Your task to perform on an android device: Go to Android settings Image 0: 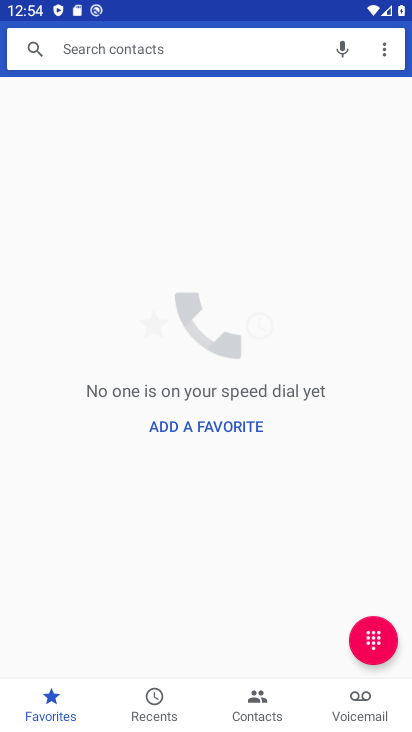
Step 0: press home button
Your task to perform on an android device: Go to Android settings Image 1: 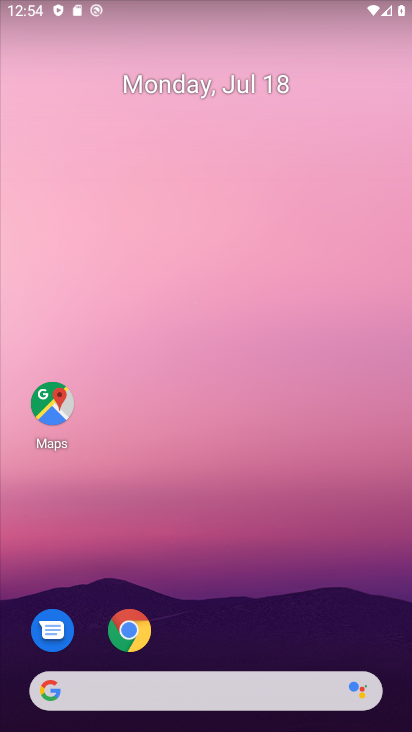
Step 1: drag from (305, 626) to (333, 9)
Your task to perform on an android device: Go to Android settings Image 2: 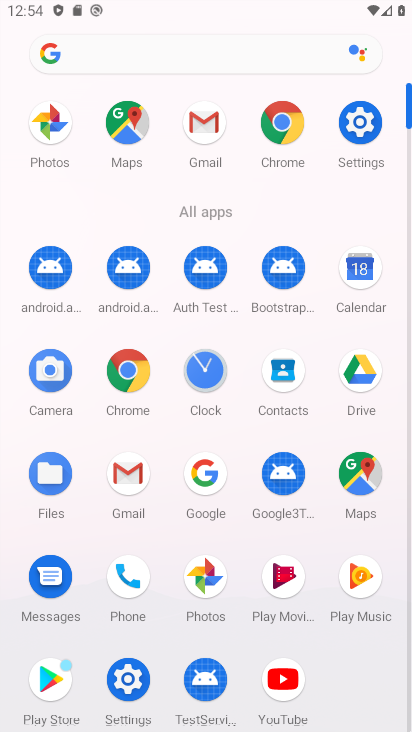
Step 2: click (360, 115)
Your task to perform on an android device: Go to Android settings Image 3: 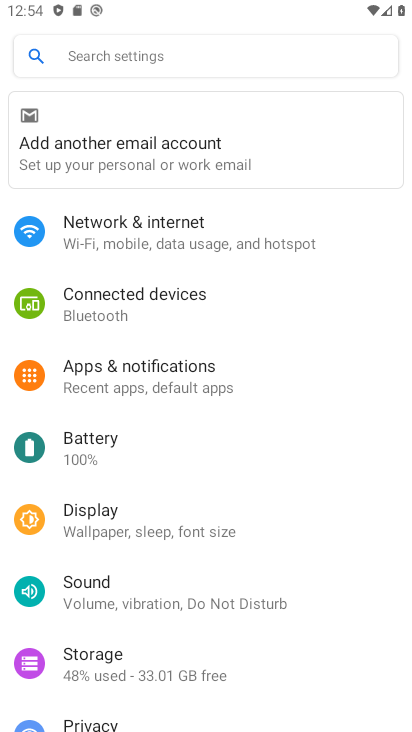
Step 3: drag from (251, 631) to (221, 68)
Your task to perform on an android device: Go to Android settings Image 4: 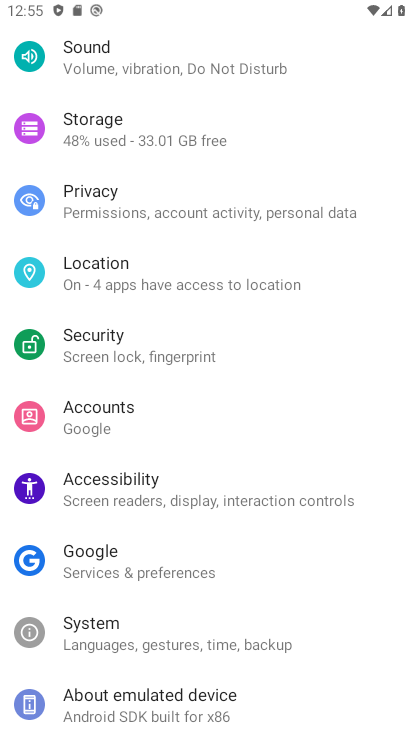
Step 4: click (219, 701)
Your task to perform on an android device: Go to Android settings Image 5: 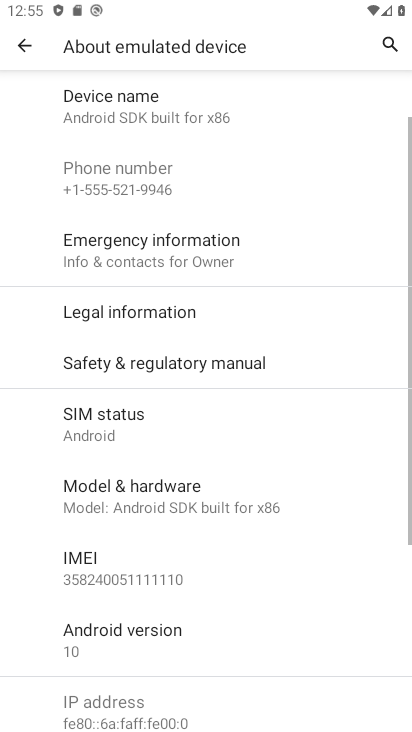
Step 5: task complete